Your task to perform on an android device: delete the emails in spam in the gmail app Image 0: 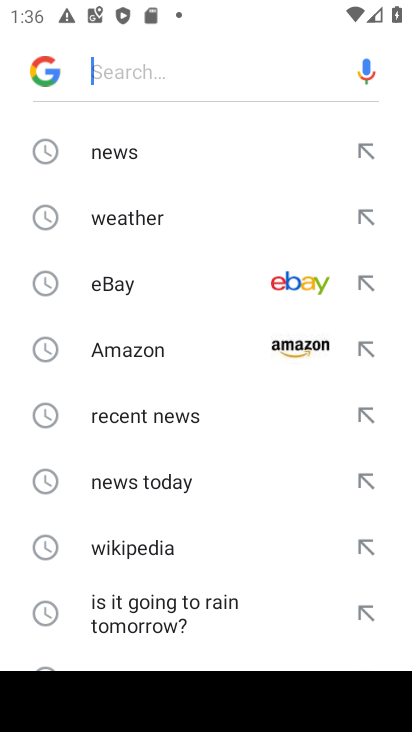
Step 0: press home button
Your task to perform on an android device: delete the emails in spam in the gmail app Image 1: 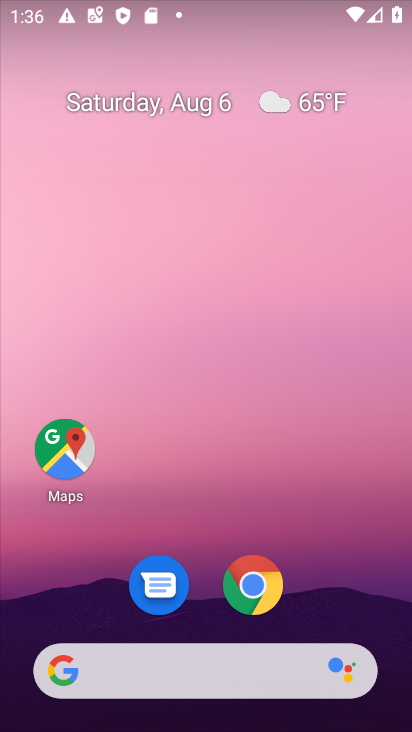
Step 1: drag from (213, 516) to (236, 16)
Your task to perform on an android device: delete the emails in spam in the gmail app Image 2: 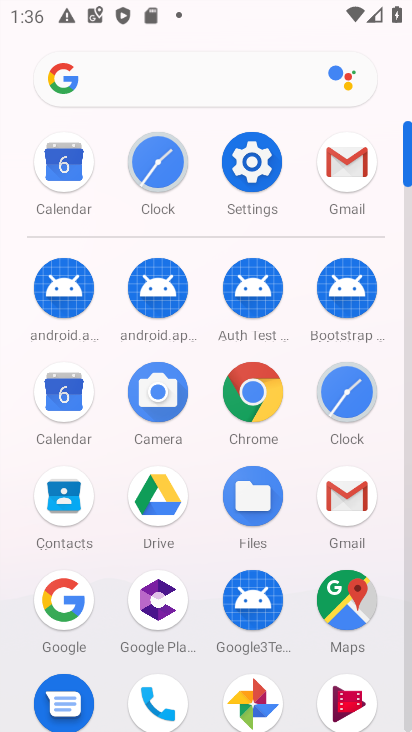
Step 2: click (350, 170)
Your task to perform on an android device: delete the emails in spam in the gmail app Image 3: 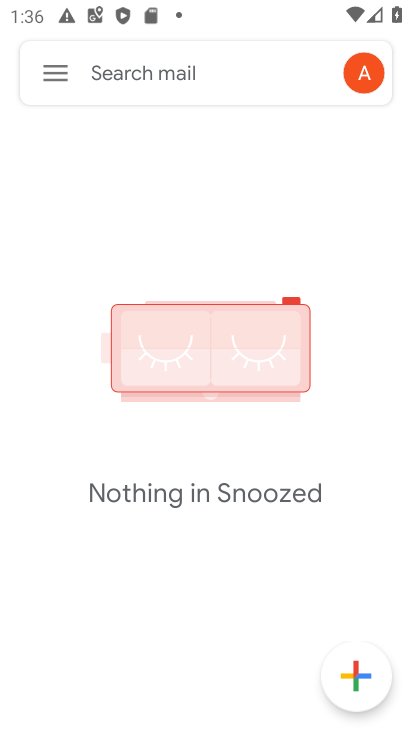
Step 3: click (63, 76)
Your task to perform on an android device: delete the emails in spam in the gmail app Image 4: 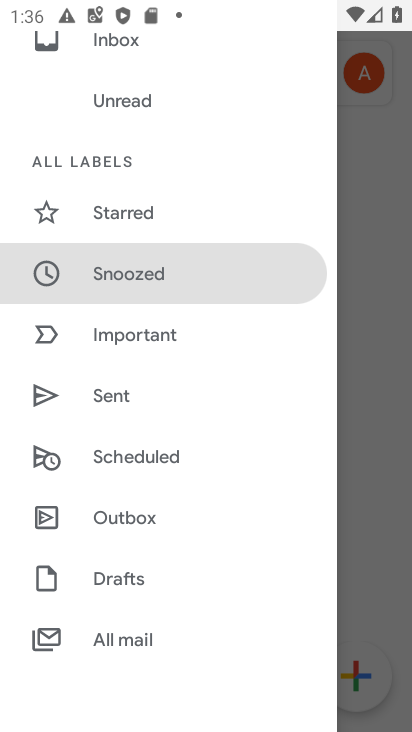
Step 4: drag from (227, 127) to (251, 600)
Your task to perform on an android device: delete the emails in spam in the gmail app Image 5: 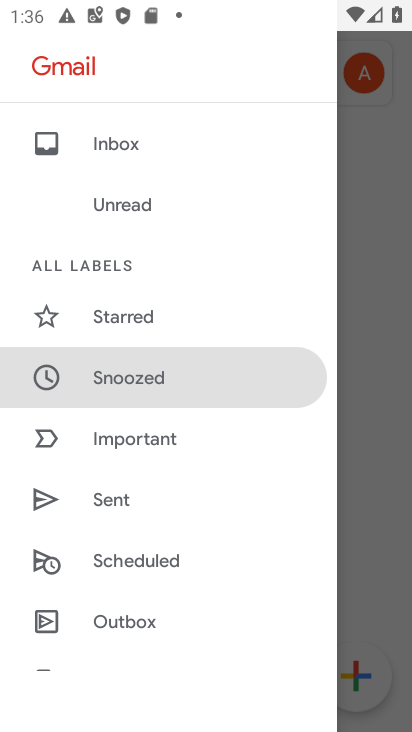
Step 5: drag from (204, 552) to (225, 5)
Your task to perform on an android device: delete the emails in spam in the gmail app Image 6: 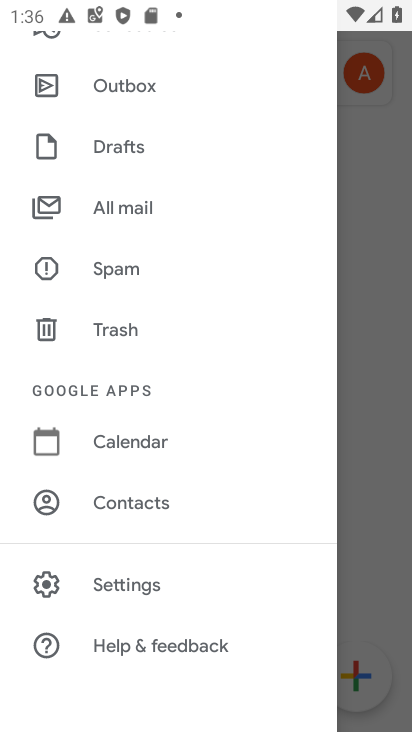
Step 6: click (118, 258)
Your task to perform on an android device: delete the emails in spam in the gmail app Image 7: 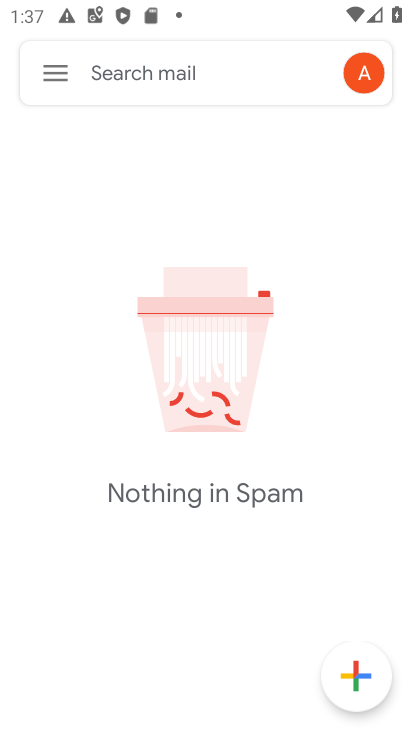
Step 7: task complete